Your task to perform on an android device: Go to calendar. Show me events next week Image 0: 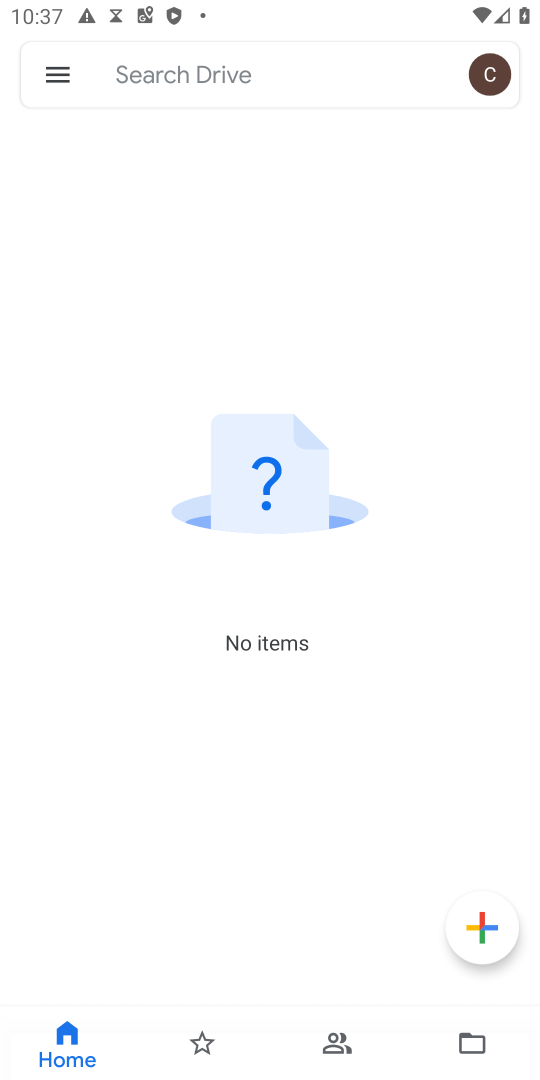
Step 0: press home button
Your task to perform on an android device: Go to calendar. Show me events next week Image 1: 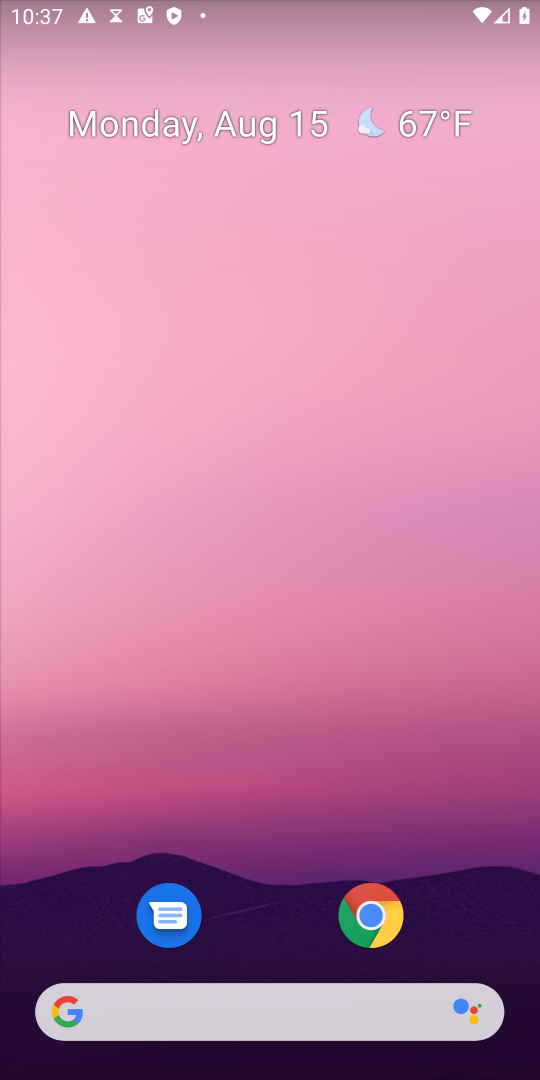
Step 1: drag from (264, 943) to (447, 148)
Your task to perform on an android device: Go to calendar. Show me events next week Image 2: 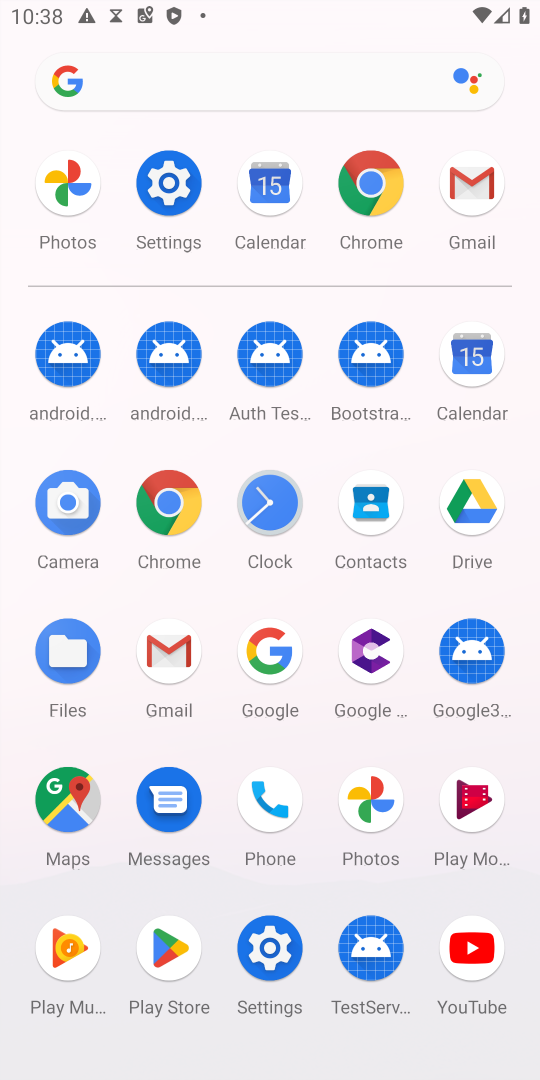
Step 2: click (264, 208)
Your task to perform on an android device: Go to calendar. Show me events next week Image 3: 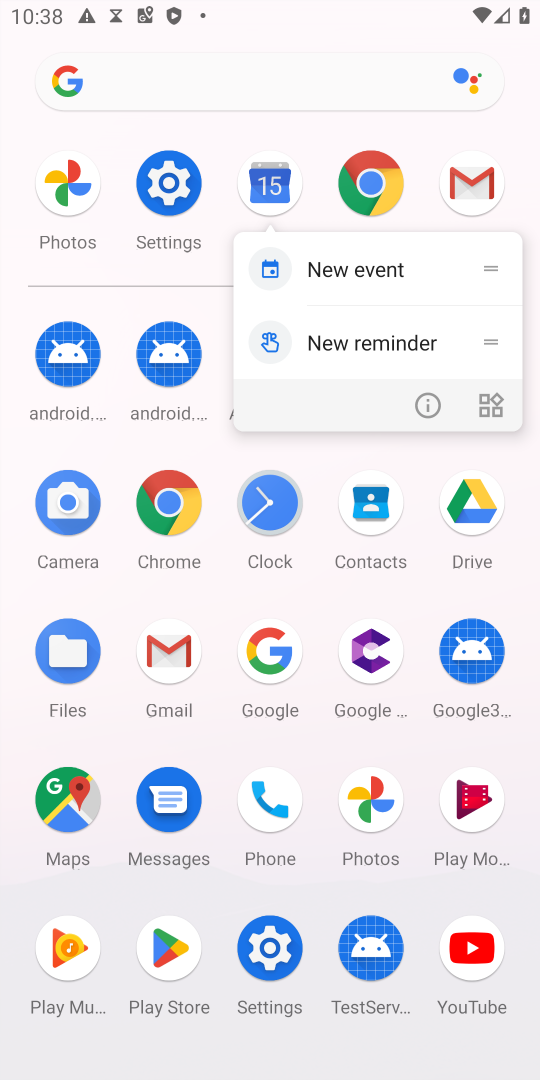
Step 3: click (280, 183)
Your task to perform on an android device: Go to calendar. Show me events next week Image 4: 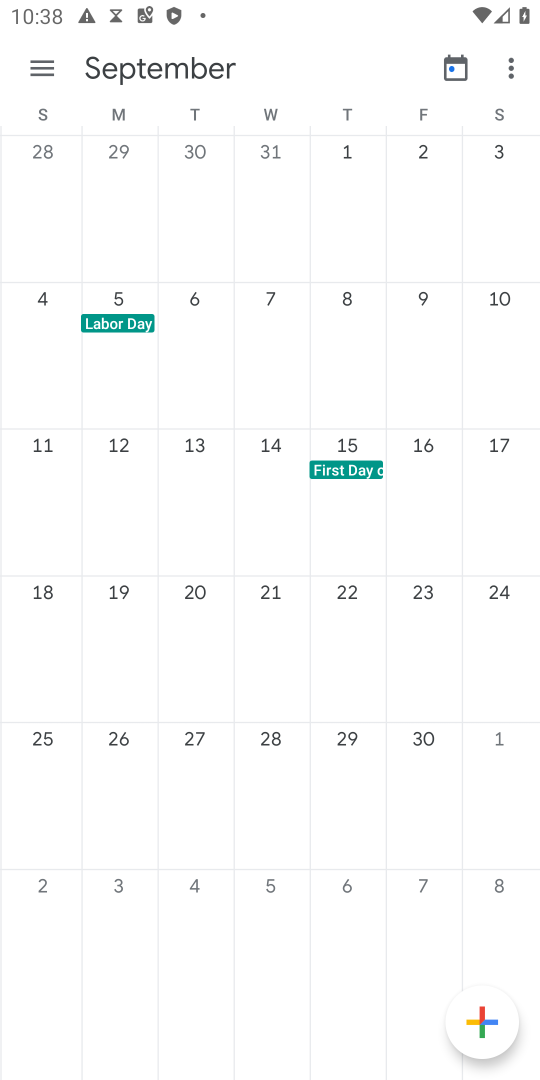
Step 4: click (49, 63)
Your task to perform on an android device: Go to calendar. Show me events next week Image 5: 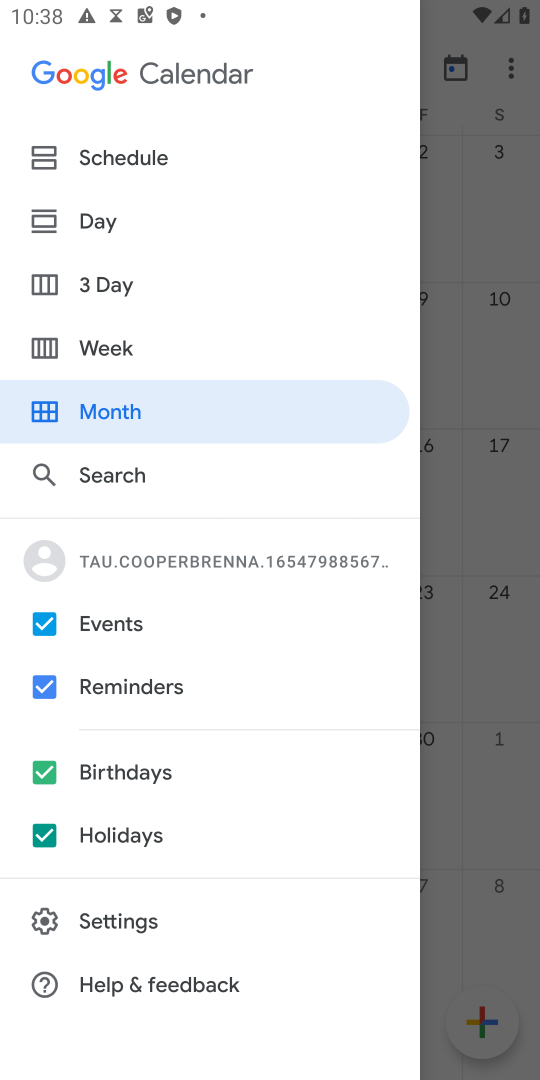
Step 5: click (108, 345)
Your task to perform on an android device: Go to calendar. Show me events next week Image 6: 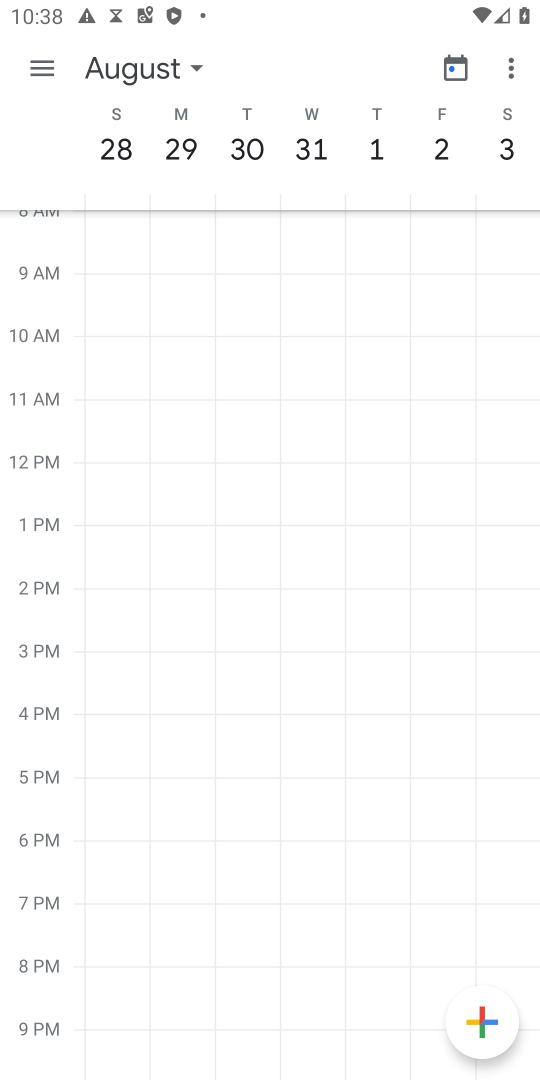
Step 6: task complete